Your task to perform on an android device: toggle location history Image 0: 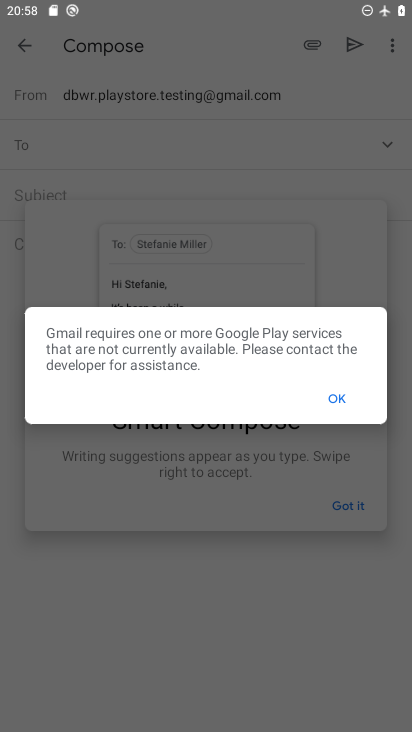
Step 0: press home button
Your task to perform on an android device: toggle location history Image 1: 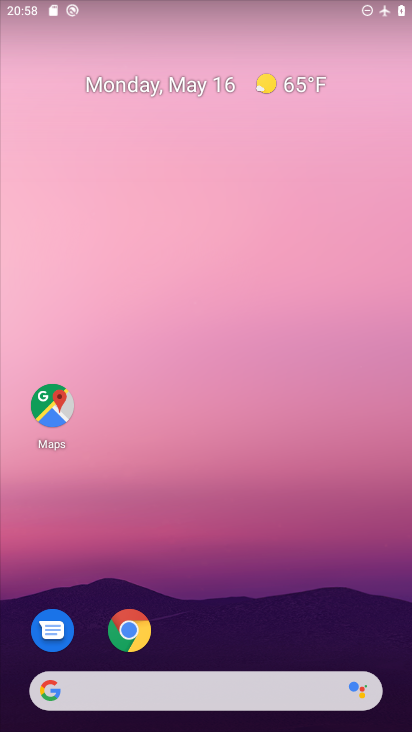
Step 1: drag from (213, 620) to (213, 77)
Your task to perform on an android device: toggle location history Image 2: 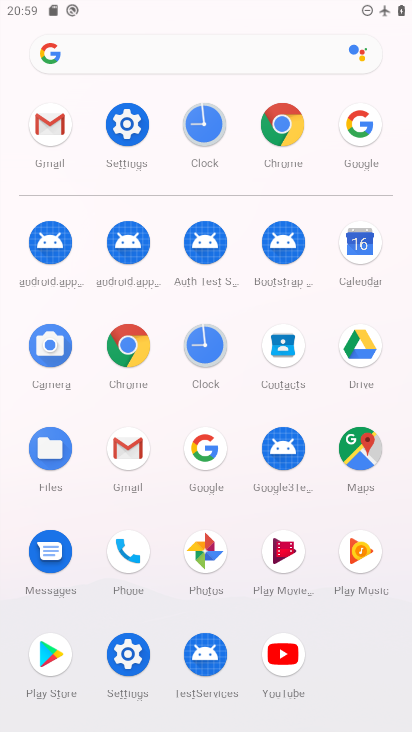
Step 2: click (106, 135)
Your task to perform on an android device: toggle location history Image 3: 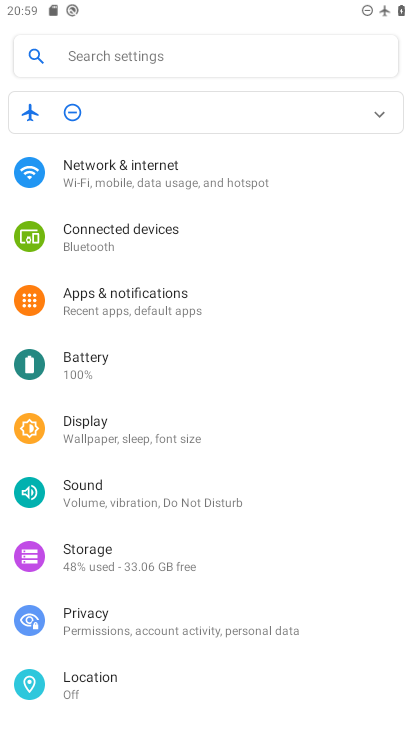
Step 3: drag from (198, 585) to (200, 360)
Your task to perform on an android device: toggle location history Image 4: 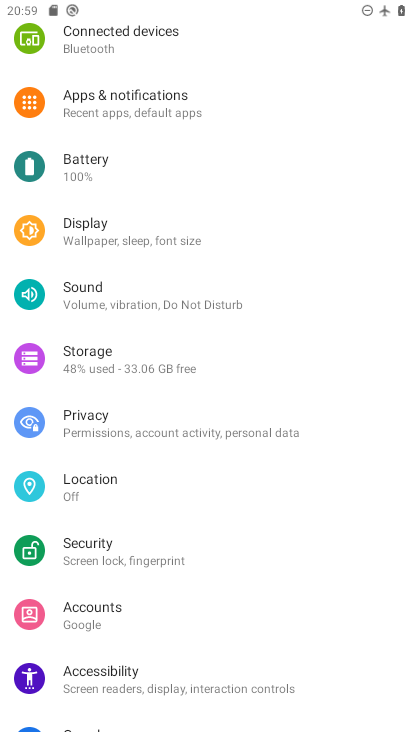
Step 4: click (103, 488)
Your task to perform on an android device: toggle location history Image 5: 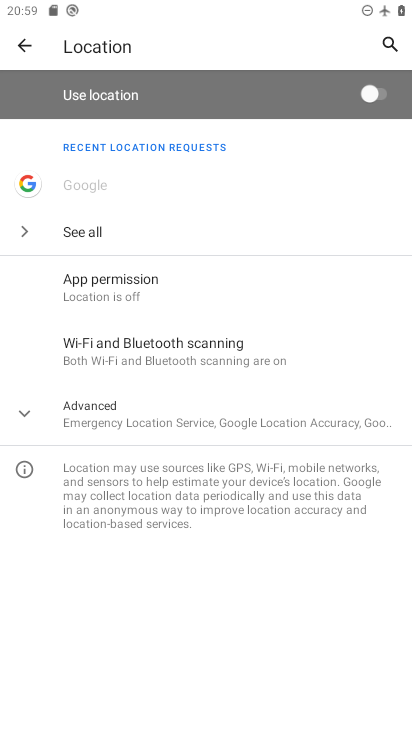
Step 5: click (126, 413)
Your task to perform on an android device: toggle location history Image 6: 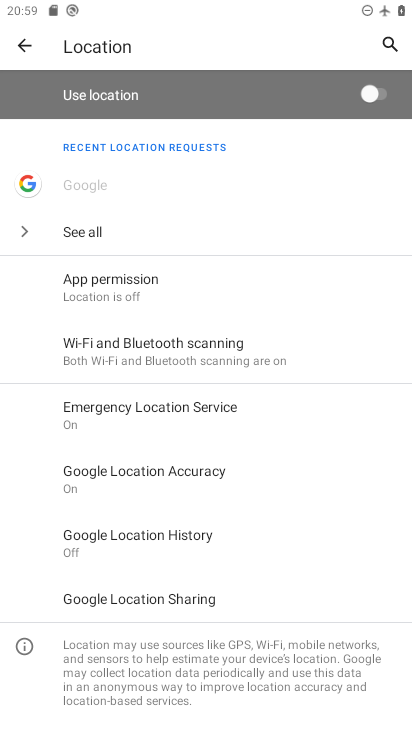
Step 6: click (150, 536)
Your task to perform on an android device: toggle location history Image 7: 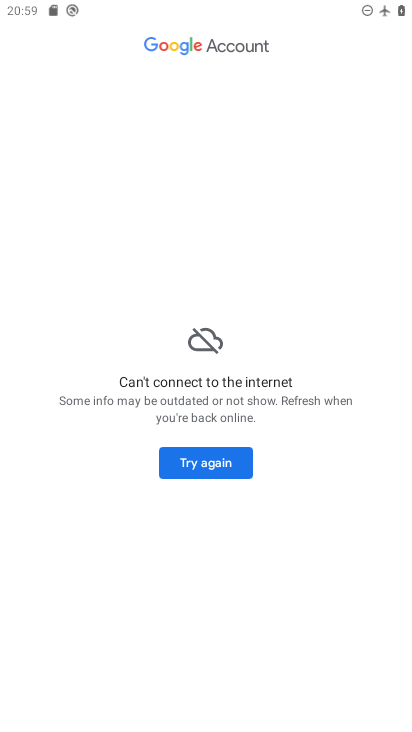
Step 7: task complete